Your task to perform on an android device: check android version Image 0: 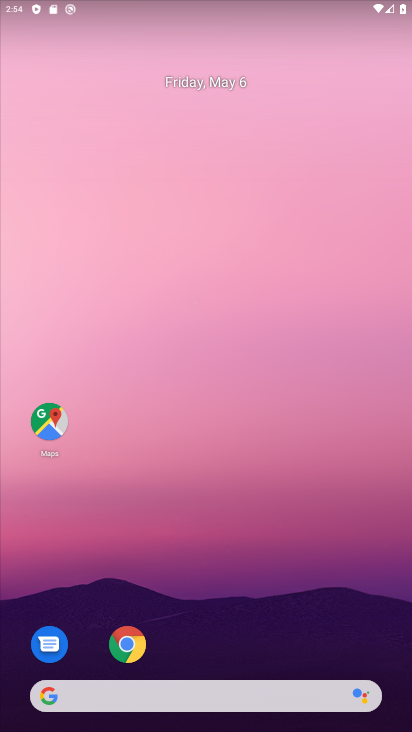
Step 0: drag from (225, 728) to (212, 254)
Your task to perform on an android device: check android version Image 1: 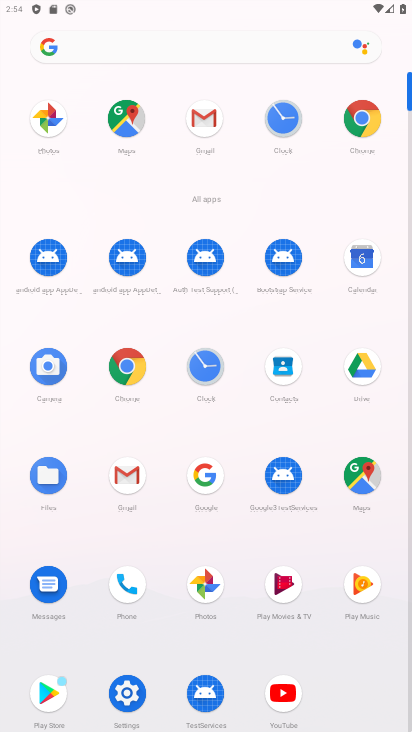
Step 1: click (126, 683)
Your task to perform on an android device: check android version Image 2: 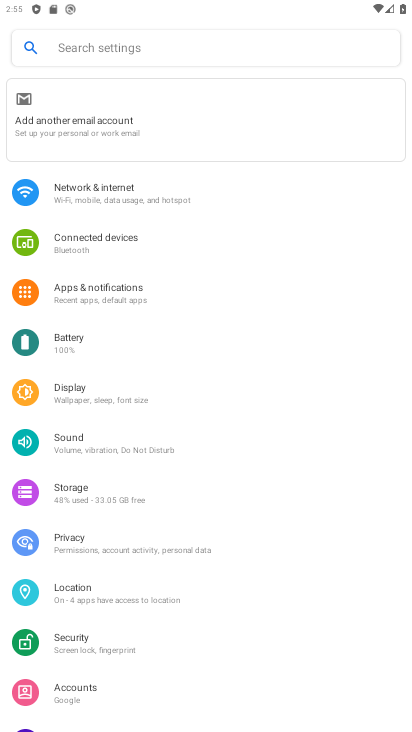
Step 2: drag from (158, 696) to (173, 296)
Your task to perform on an android device: check android version Image 3: 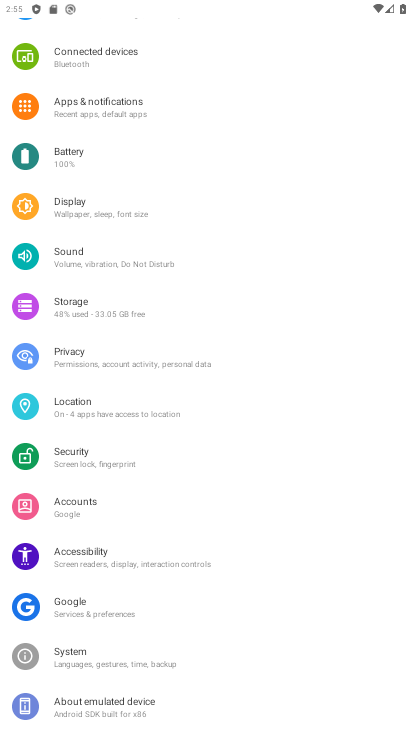
Step 3: click (127, 700)
Your task to perform on an android device: check android version Image 4: 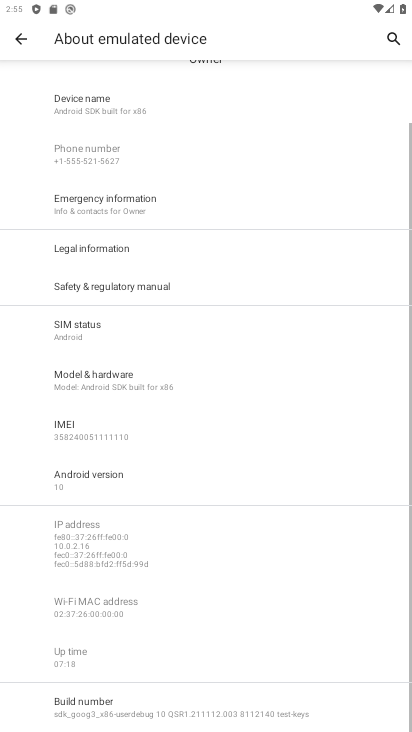
Step 4: drag from (145, 613) to (152, 478)
Your task to perform on an android device: check android version Image 5: 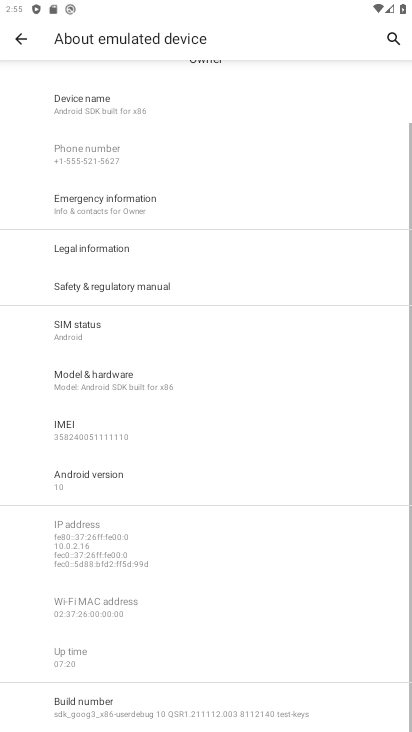
Step 5: click (87, 475)
Your task to perform on an android device: check android version Image 6: 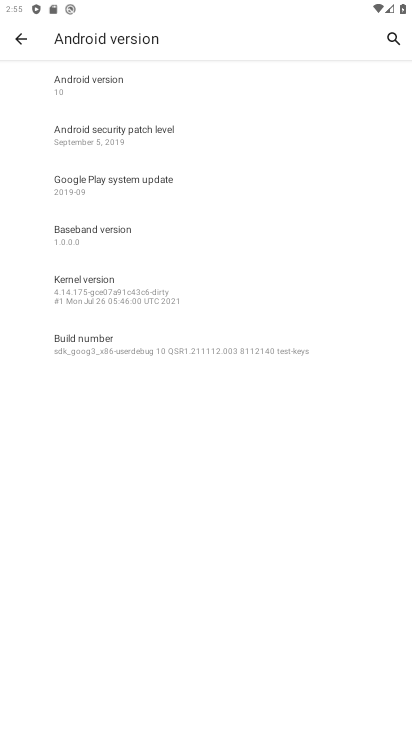
Step 6: task complete